Your task to perform on an android device: Search for sushi restaurants on Maps Image 0: 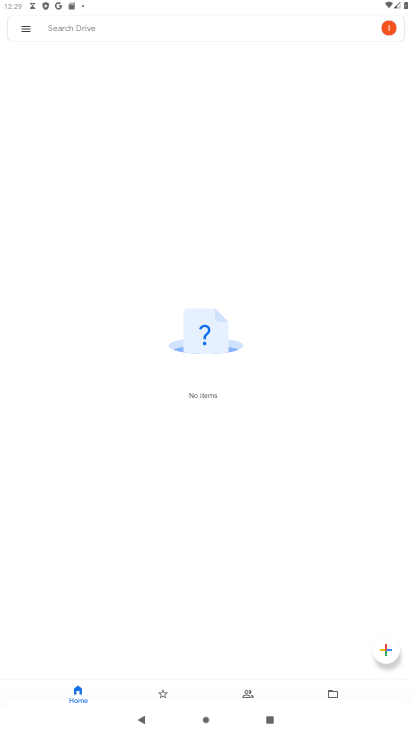
Step 0: press home button
Your task to perform on an android device: Search for sushi restaurants on Maps Image 1: 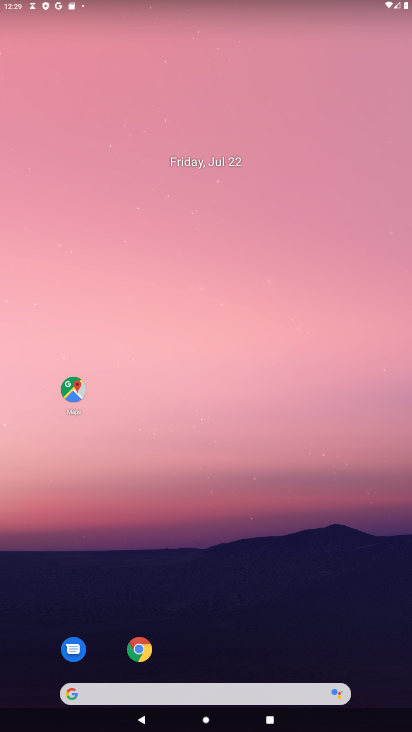
Step 1: drag from (330, 553) to (210, 125)
Your task to perform on an android device: Search for sushi restaurants on Maps Image 2: 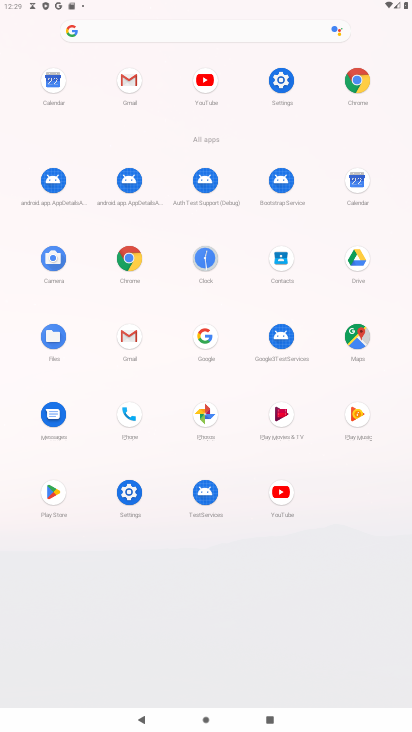
Step 2: click (360, 336)
Your task to perform on an android device: Search for sushi restaurants on Maps Image 3: 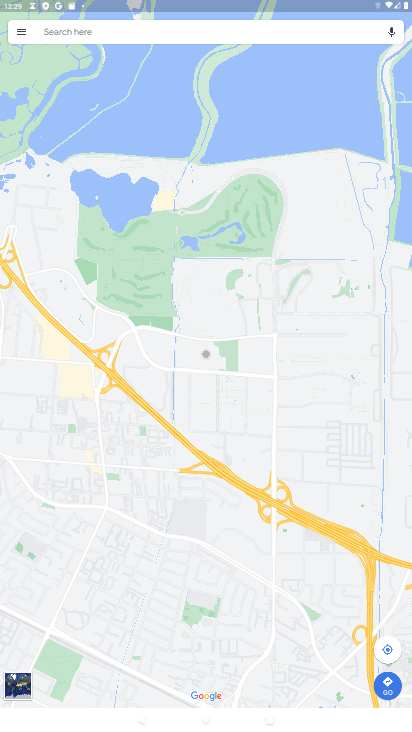
Step 3: click (142, 29)
Your task to perform on an android device: Search for sushi restaurants on Maps Image 4: 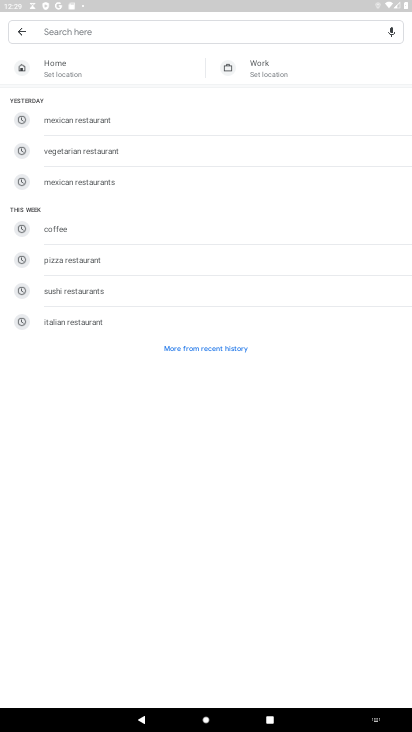
Step 4: click (138, 295)
Your task to perform on an android device: Search for sushi restaurants on Maps Image 5: 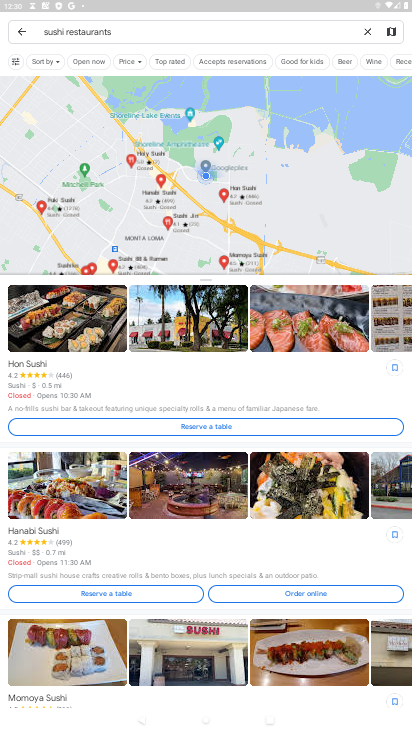
Step 5: task complete